Your task to perform on an android device: Open calendar and show me the fourth week of next month Image 0: 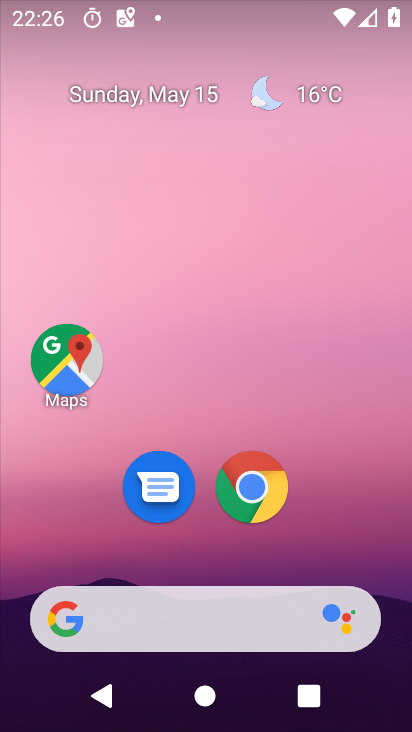
Step 0: drag from (385, 546) to (373, 234)
Your task to perform on an android device: Open calendar and show me the fourth week of next month Image 1: 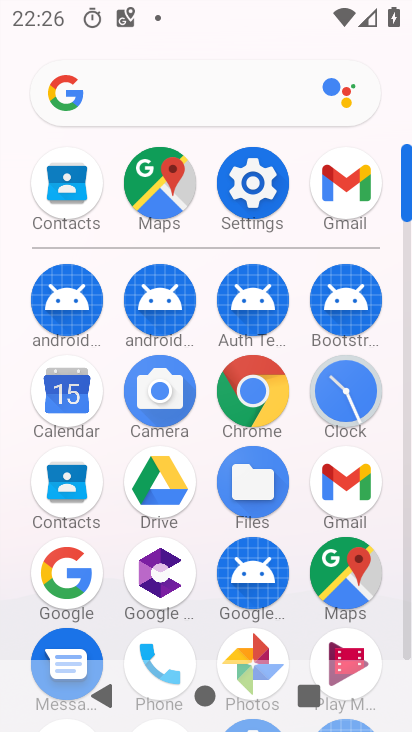
Step 1: click (69, 395)
Your task to perform on an android device: Open calendar and show me the fourth week of next month Image 2: 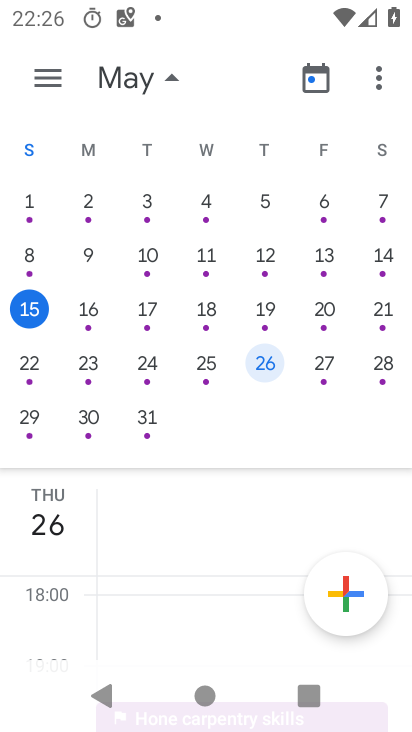
Step 2: drag from (402, 234) to (92, 216)
Your task to perform on an android device: Open calendar and show me the fourth week of next month Image 3: 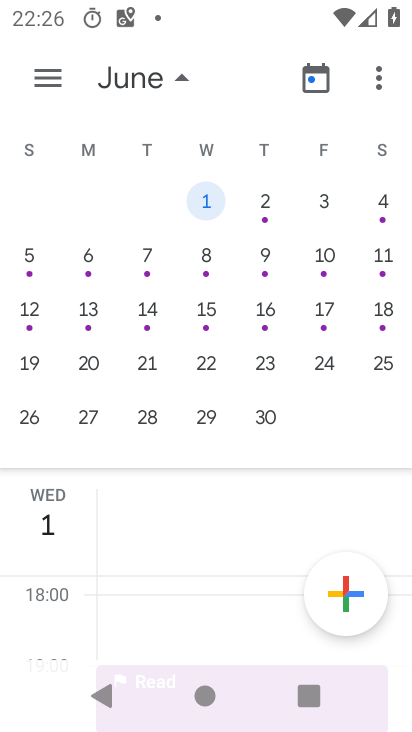
Step 3: click (268, 358)
Your task to perform on an android device: Open calendar and show me the fourth week of next month Image 4: 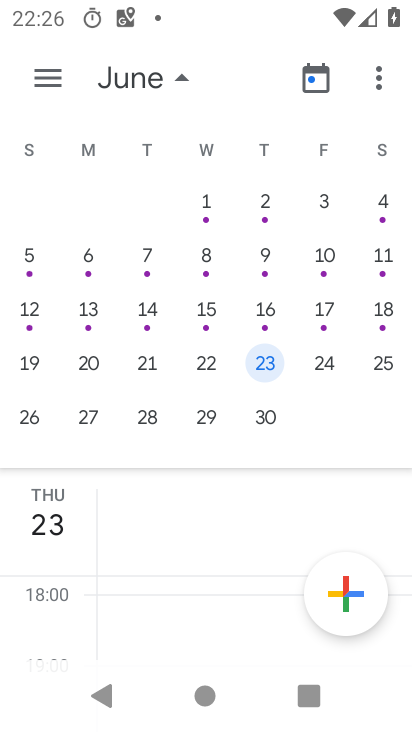
Step 4: task complete